Your task to perform on an android device: Open accessibility settings Image 0: 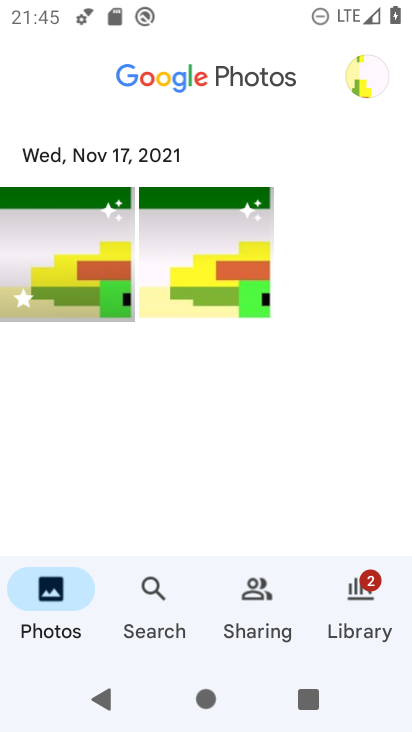
Step 0: press home button
Your task to perform on an android device: Open accessibility settings Image 1: 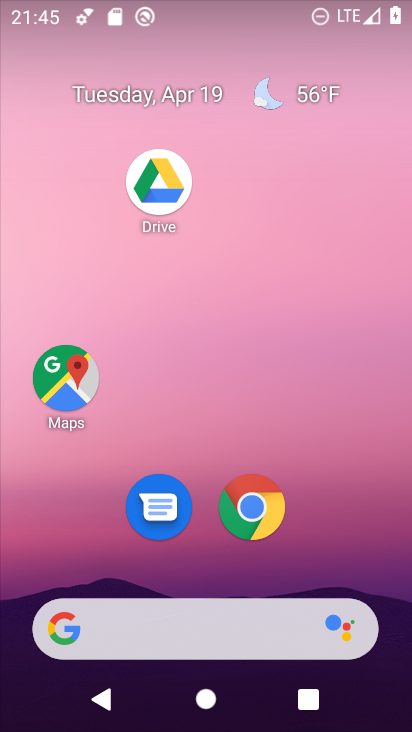
Step 1: drag from (373, 544) to (388, 87)
Your task to perform on an android device: Open accessibility settings Image 2: 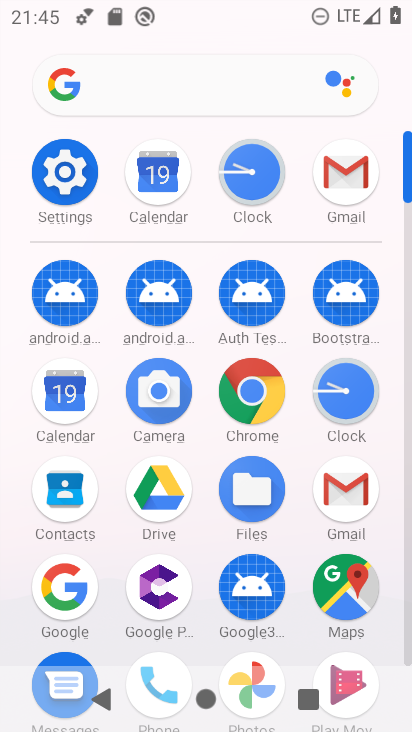
Step 2: click (71, 175)
Your task to perform on an android device: Open accessibility settings Image 3: 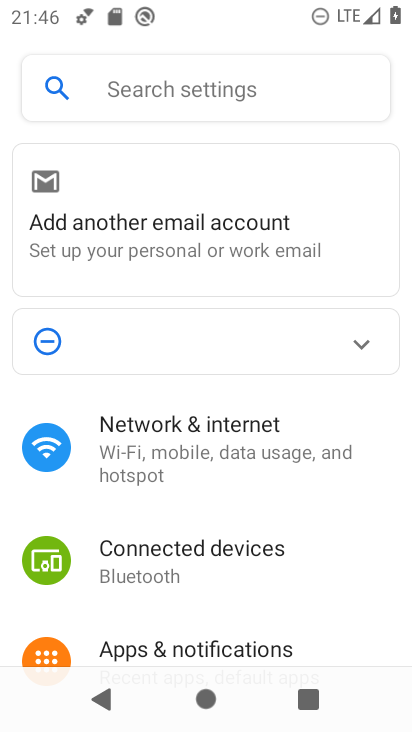
Step 3: drag from (236, 585) to (269, 252)
Your task to perform on an android device: Open accessibility settings Image 4: 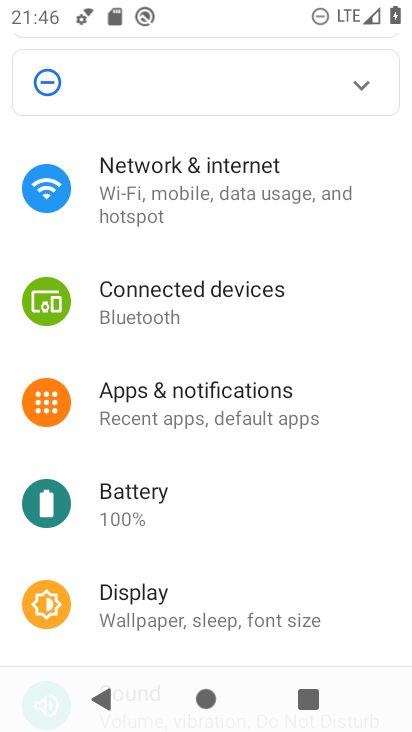
Step 4: drag from (248, 505) to (254, 141)
Your task to perform on an android device: Open accessibility settings Image 5: 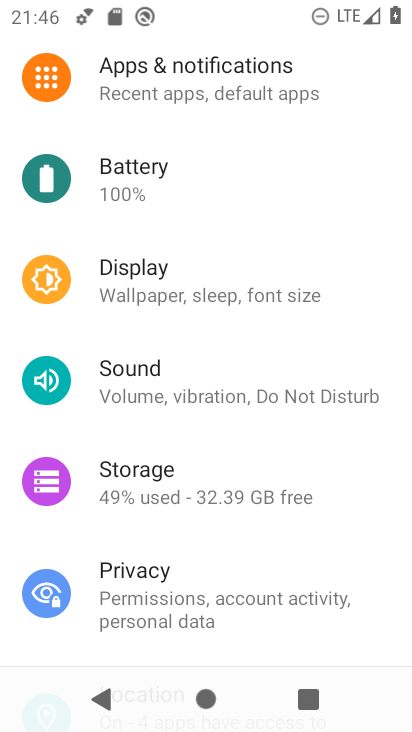
Step 5: drag from (223, 563) to (213, 158)
Your task to perform on an android device: Open accessibility settings Image 6: 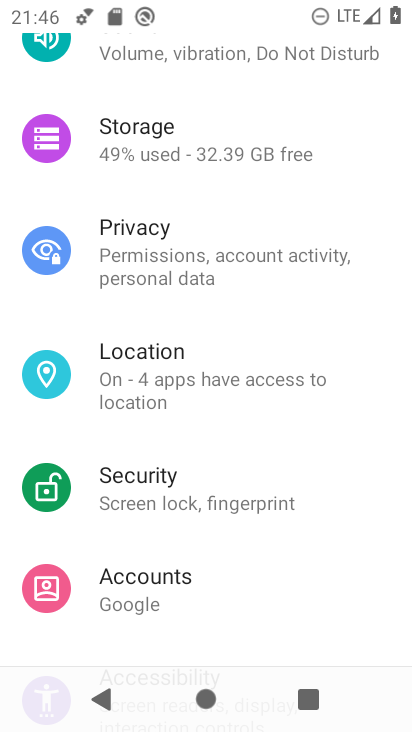
Step 6: drag from (215, 552) to (202, 159)
Your task to perform on an android device: Open accessibility settings Image 7: 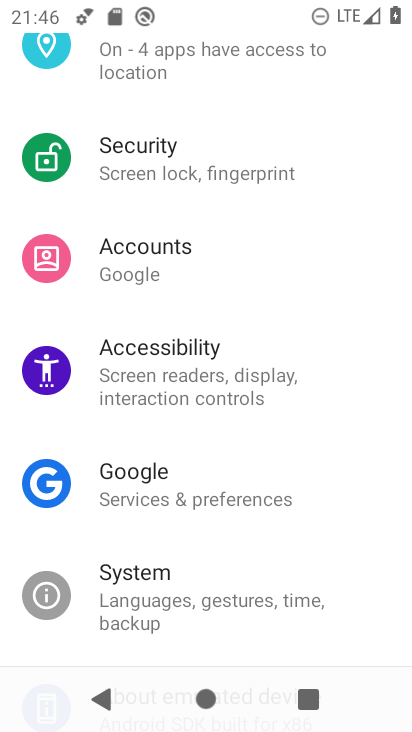
Step 7: click (198, 377)
Your task to perform on an android device: Open accessibility settings Image 8: 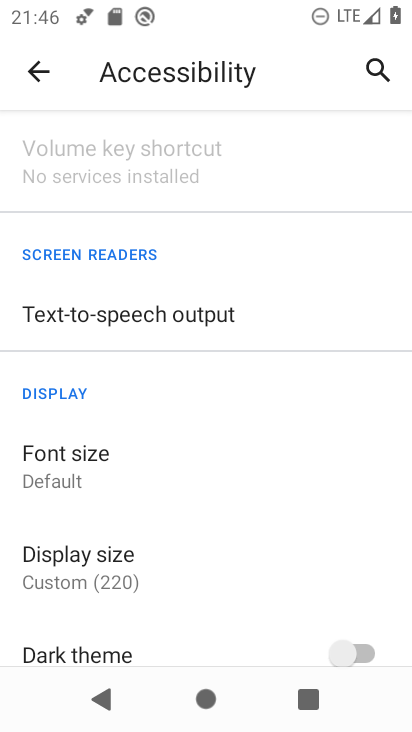
Step 8: task complete